Your task to perform on an android device: star an email in the gmail app Image 0: 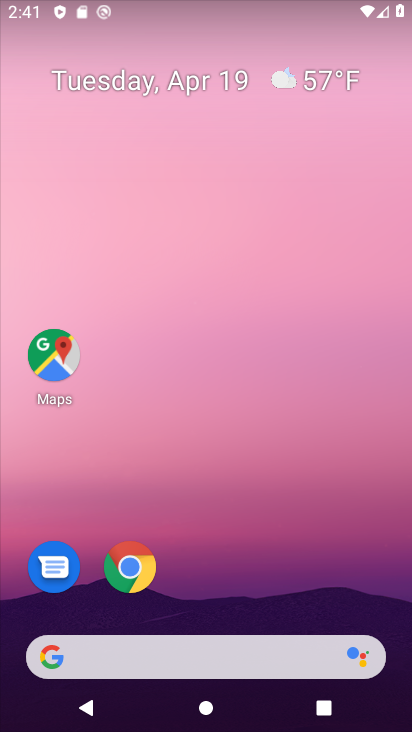
Step 0: drag from (376, 602) to (379, 131)
Your task to perform on an android device: star an email in the gmail app Image 1: 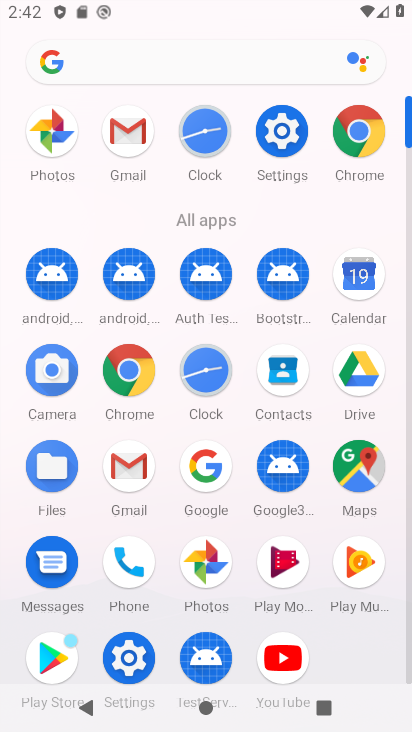
Step 1: click (135, 469)
Your task to perform on an android device: star an email in the gmail app Image 2: 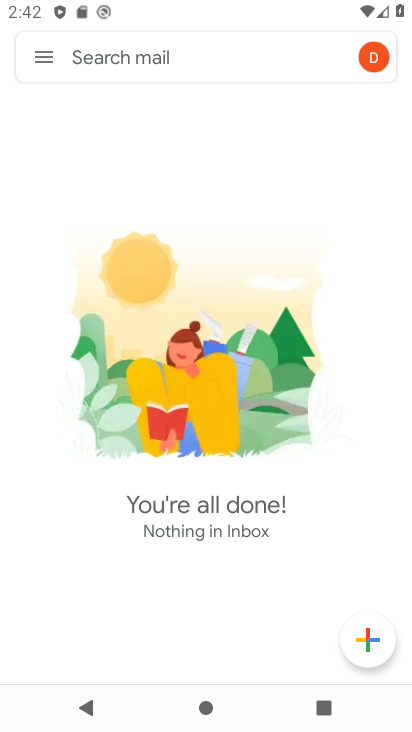
Step 2: click (48, 58)
Your task to perform on an android device: star an email in the gmail app Image 3: 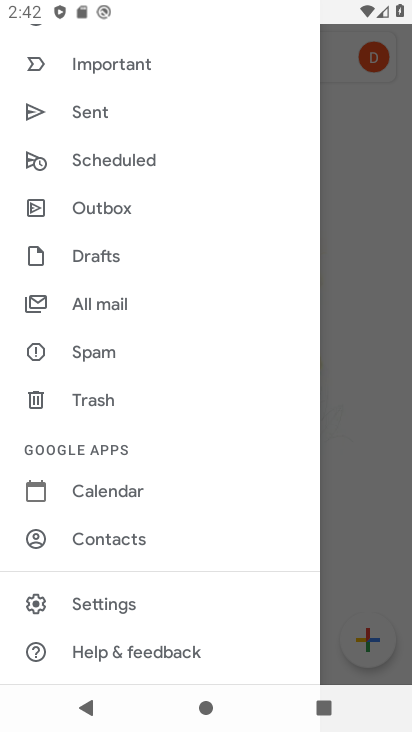
Step 3: drag from (254, 516) to (244, 319)
Your task to perform on an android device: star an email in the gmail app Image 4: 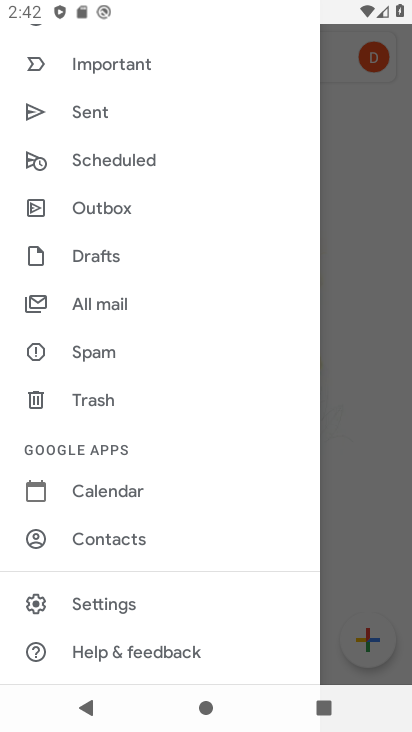
Step 4: drag from (247, 269) to (239, 472)
Your task to perform on an android device: star an email in the gmail app Image 5: 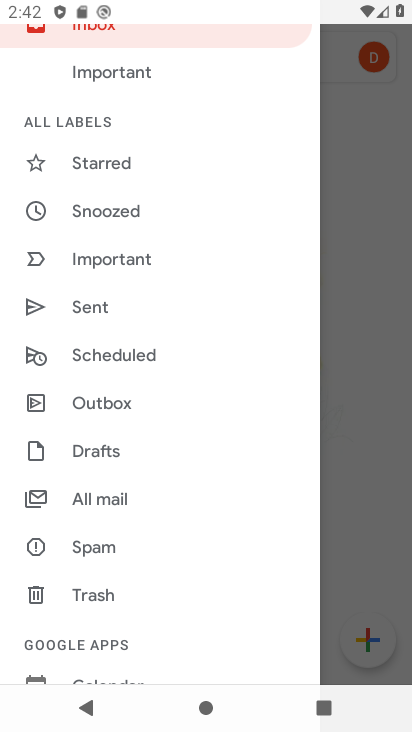
Step 5: drag from (237, 251) to (236, 436)
Your task to perform on an android device: star an email in the gmail app Image 6: 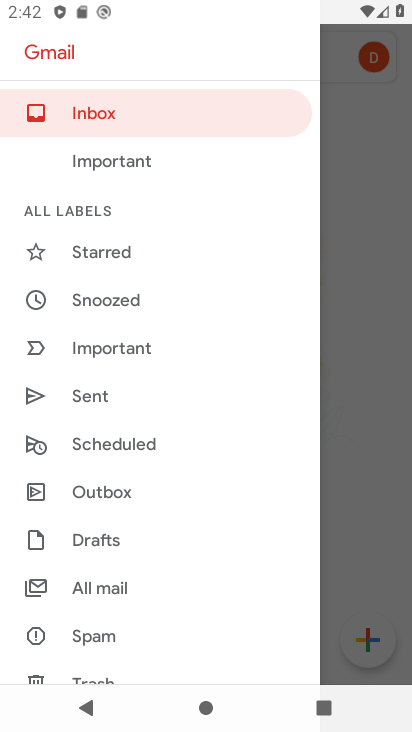
Step 6: click (146, 117)
Your task to perform on an android device: star an email in the gmail app Image 7: 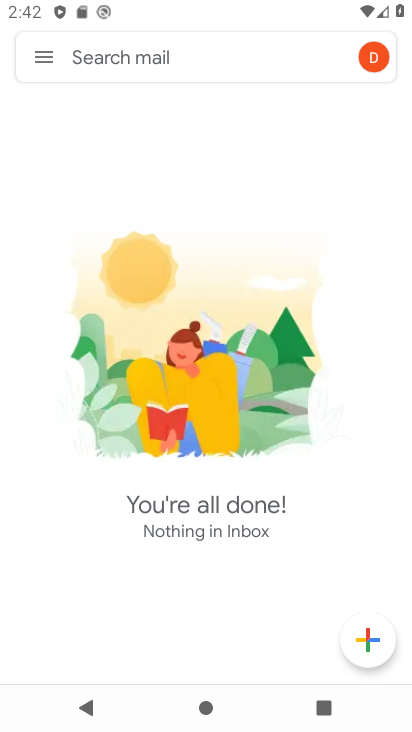
Step 7: task complete